Your task to perform on an android device: Show me recent news Image 0: 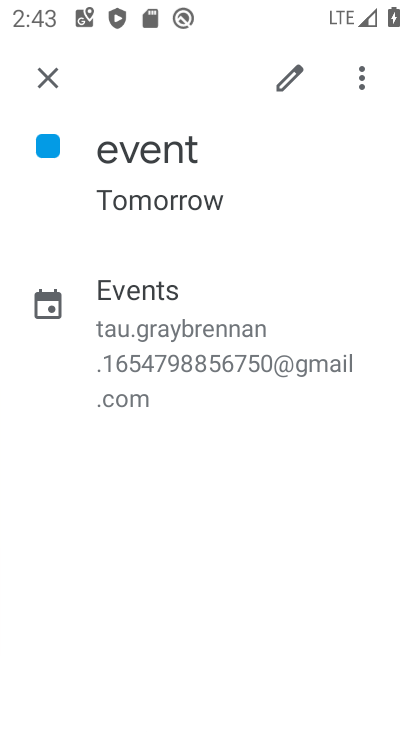
Step 0: press home button
Your task to perform on an android device: Show me recent news Image 1: 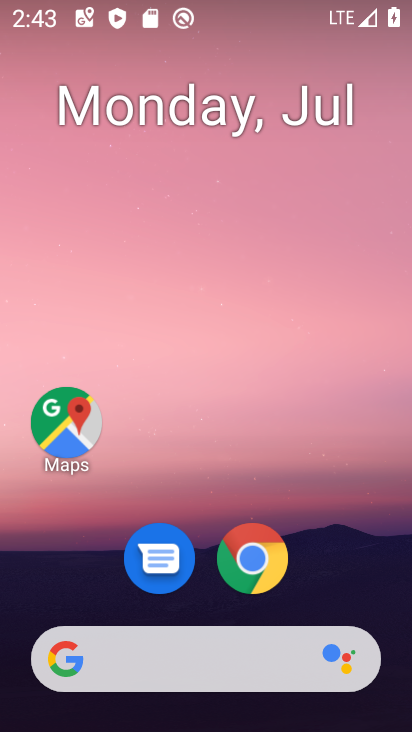
Step 1: task complete